Your task to perform on an android device: What's the weather going to be this weekend? Image 0: 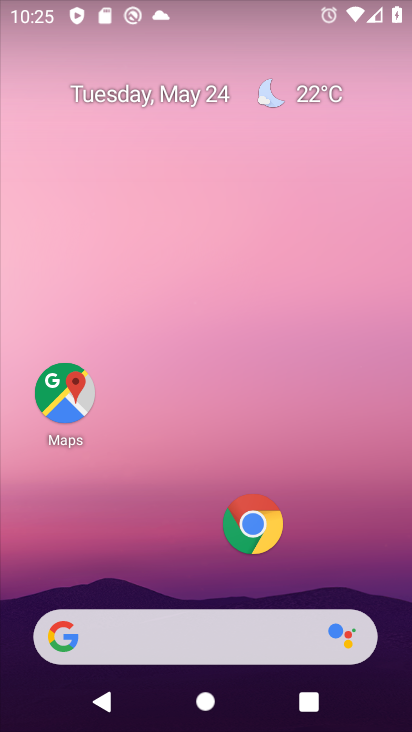
Step 0: drag from (170, 516) to (244, 62)
Your task to perform on an android device: What's the weather going to be this weekend? Image 1: 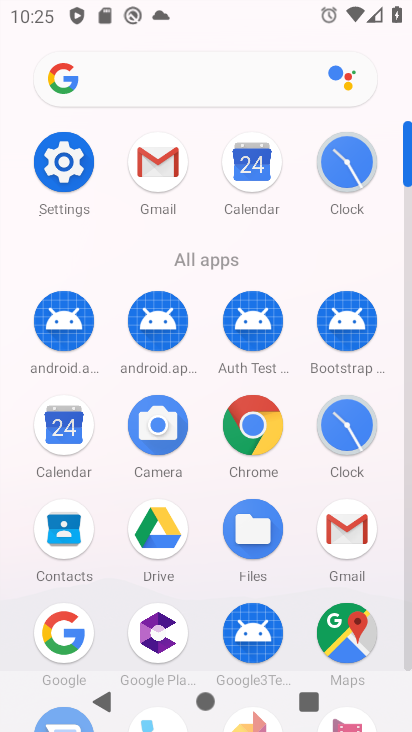
Step 1: drag from (204, 483) to (241, 184)
Your task to perform on an android device: What's the weather going to be this weekend? Image 2: 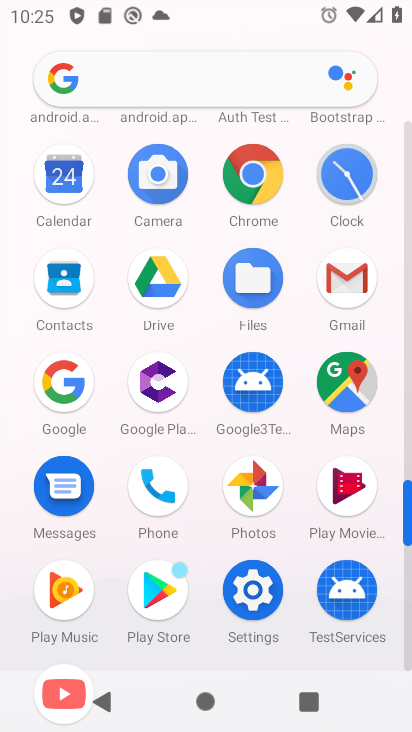
Step 2: click (74, 379)
Your task to perform on an android device: What's the weather going to be this weekend? Image 3: 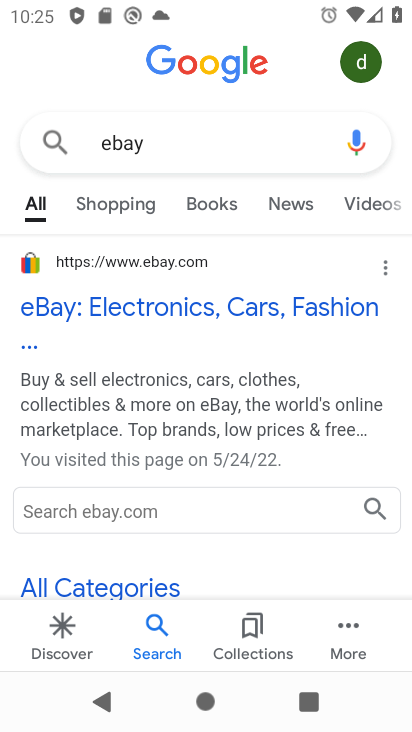
Step 3: click (239, 133)
Your task to perform on an android device: What's the weather going to be this weekend? Image 4: 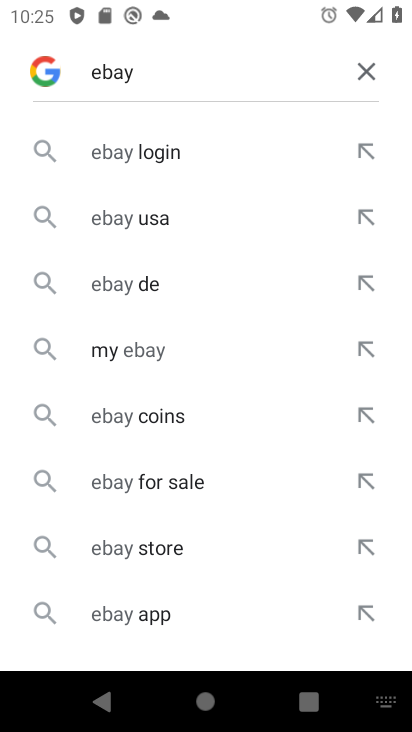
Step 4: click (364, 55)
Your task to perform on an android device: What's the weather going to be this weekend? Image 5: 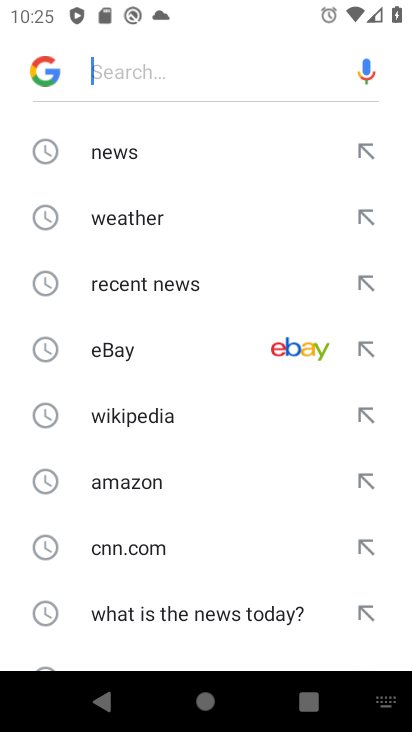
Step 5: click (153, 210)
Your task to perform on an android device: What's the weather going to be this weekend? Image 6: 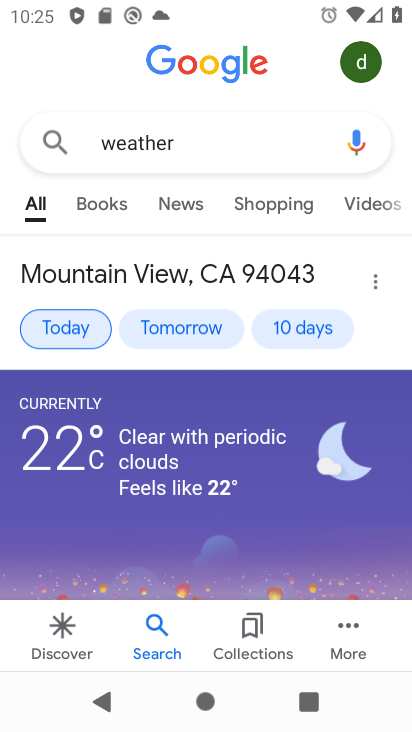
Step 6: click (90, 319)
Your task to perform on an android device: What's the weather going to be this weekend? Image 7: 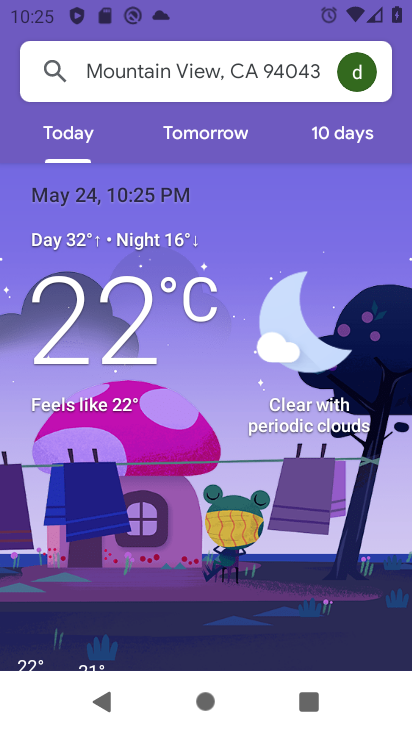
Step 7: click (350, 138)
Your task to perform on an android device: What's the weather going to be this weekend? Image 8: 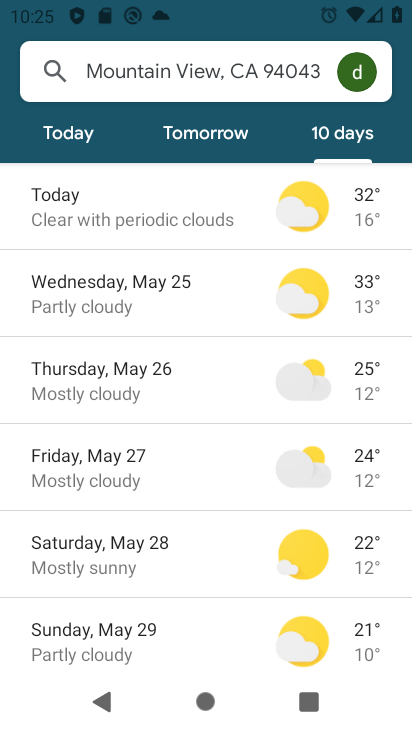
Step 8: click (161, 543)
Your task to perform on an android device: What's the weather going to be this weekend? Image 9: 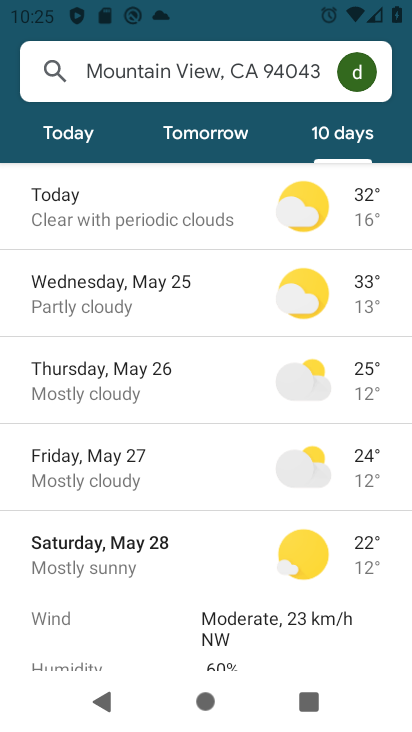
Step 9: task complete